Your task to perform on an android device: Search for pizza restaurants on Maps Image 0: 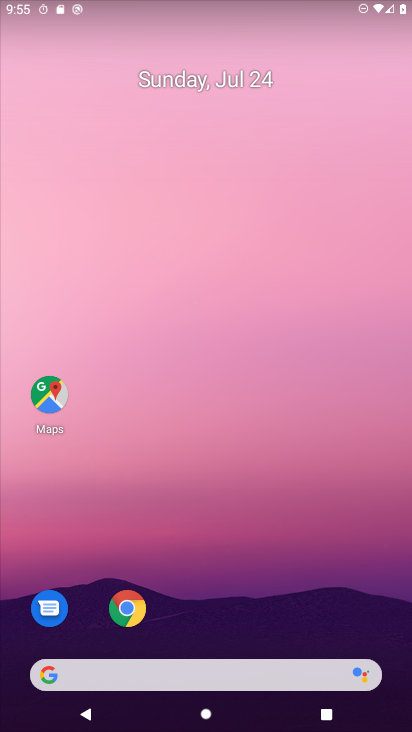
Step 0: click (307, 107)
Your task to perform on an android device: Search for pizza restaurants on Maps Image 1: 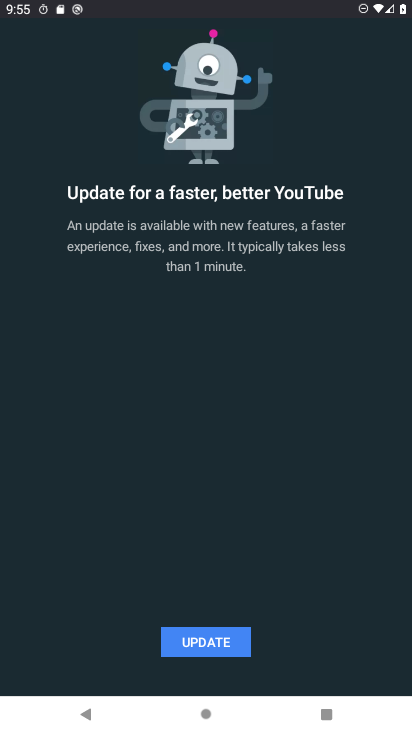
Step 1: drag from (185, 632) to (254, 234)
Your task to perform on an android device: Search for pizza restaurants on Maps Image 2: 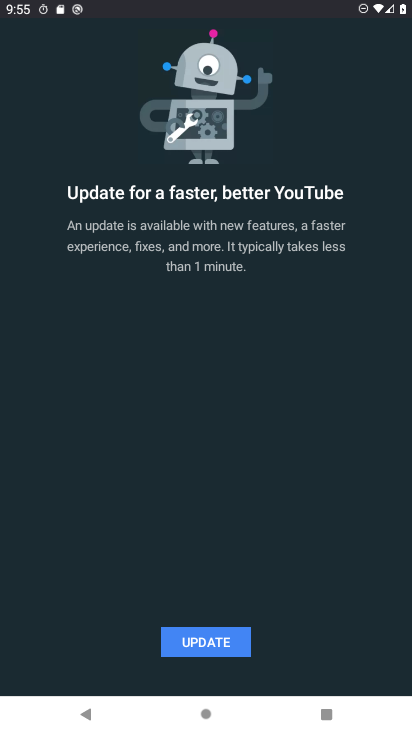
Step 2: press home button
Your task to perform on an android device: Search for pizza restaurants on Maps Image 3: 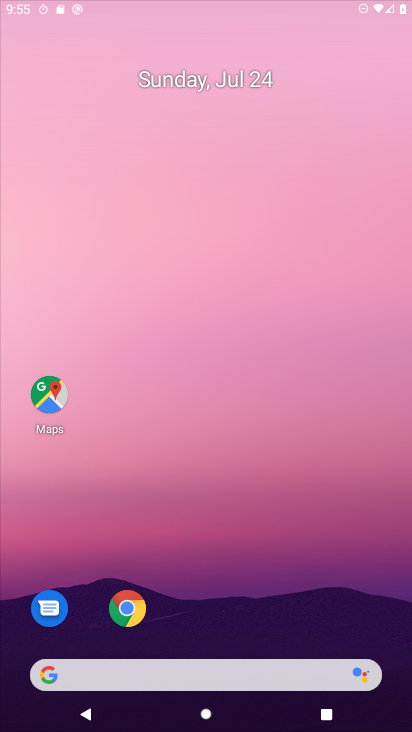
Step 3: drag from (161, 653) to (265, 71)
Your task to perform on an android device: Search for pizza restaurants on Maps Image 4: 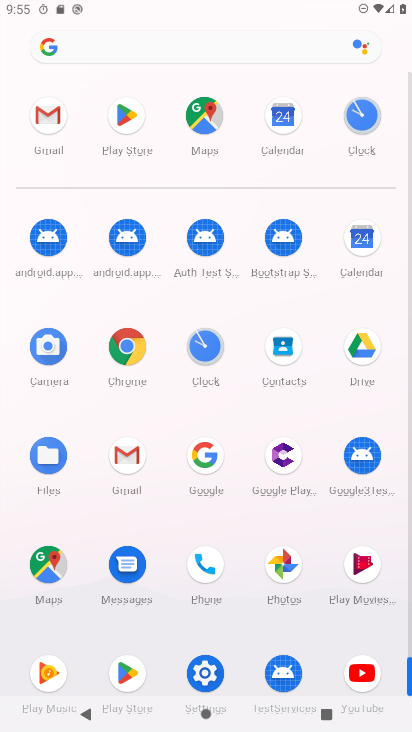
Step 4: click (56, 561)
Your task to perform on an android device: Search for pizza restaurants on Maps Image 5: 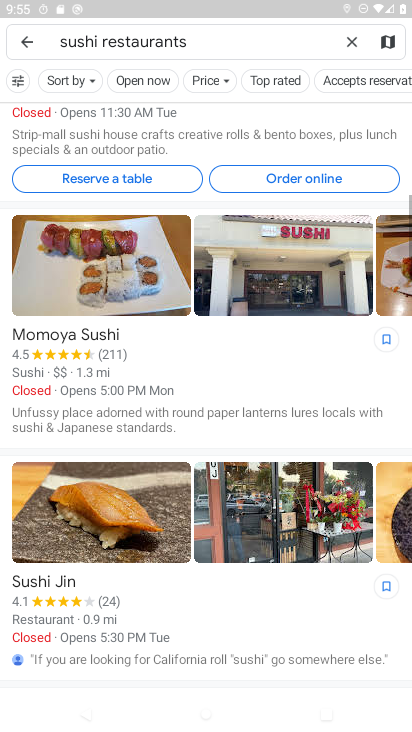
Step 5: click (348, 43)
Your task to perform on an android device: Search for pizza restaurants on Maps Image 6: 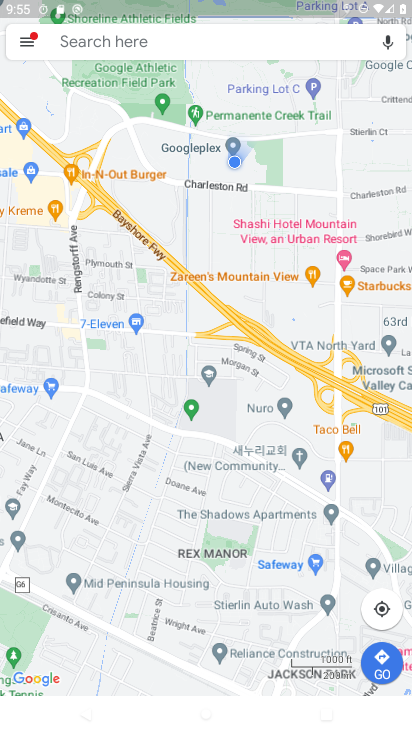
Step 6: click (68, 29)
Your task to perform on an android device: Search for pizza restaurants on Maps Image 7: 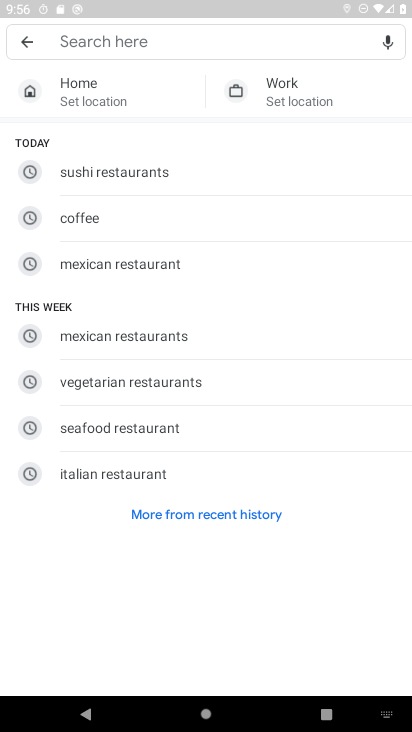
Step 7: type "pizza restaurants"
Your task to perform on an android device: Search for pizza restaurants on Maps Image 8: 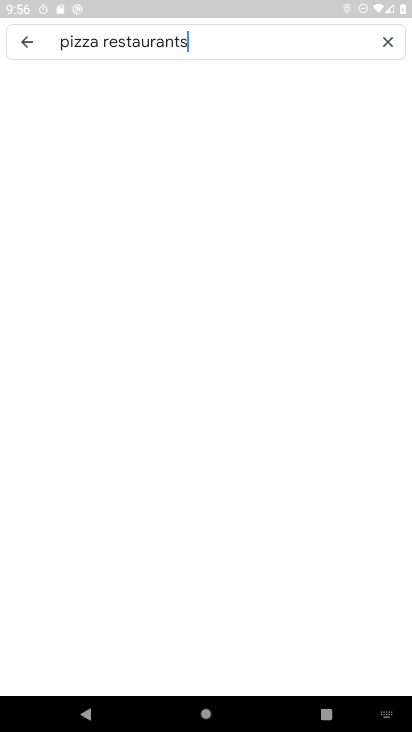
Step 8: type ""
Your task to perform on an android device: Search for pizza restaurants on Maps Image 9: 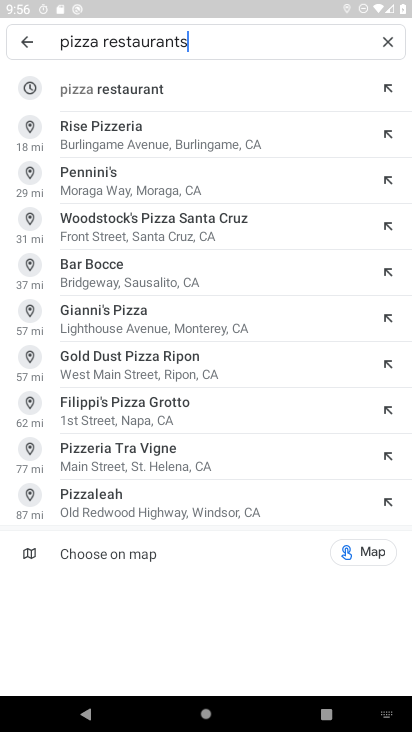
Step 9: click (106, 89)
Your task to perform on an android device: Search for pizza restaurants on Maps Image 10: 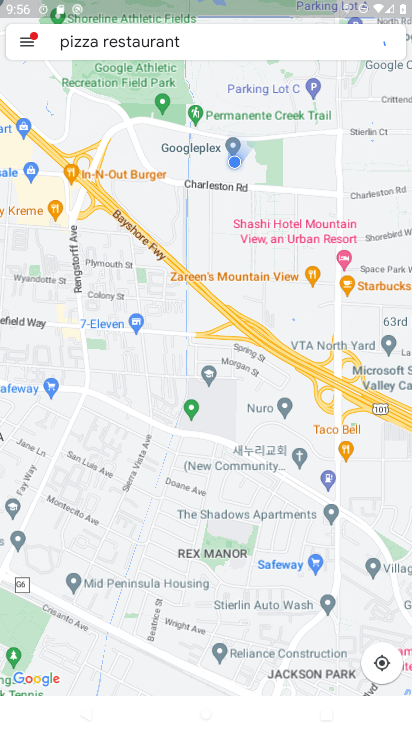
Step 10: task complete